Your task to perform on an android device: Open Google Chrome and click the shortcut for Amazon.com Image 0: 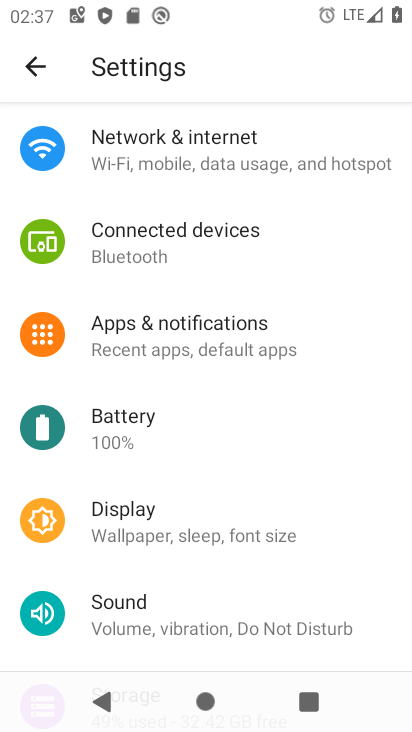
Step 0: press home button
Your task to perform on an android device: Open Google Chrome and click the shortcut for Amazon.com Image 1: 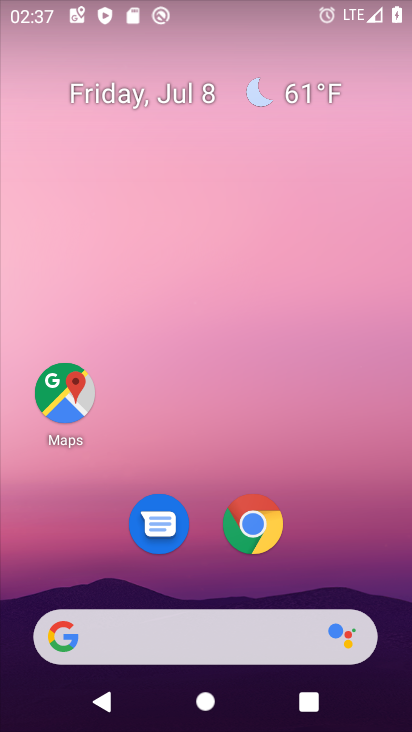
Step 1: click (269, 526)
Your task to perform on an android device: Open Google Chrome and click the shortcut for Amazon.com Image 2: 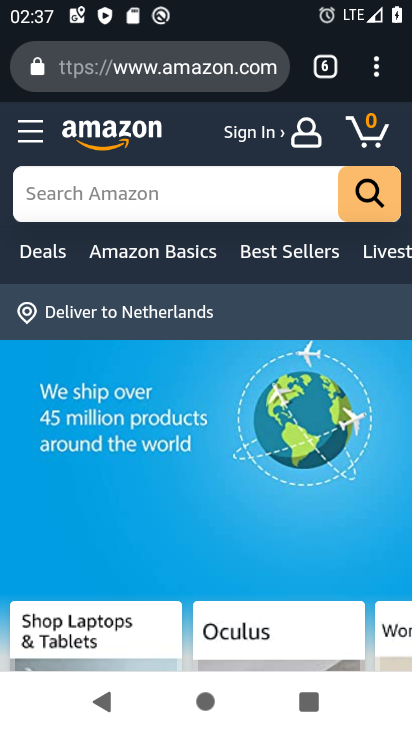
Step 2: click (377, 77)
Your task to perform on an android device: Open Google Chrome and click the shortcut for Amazon.com Image 3: 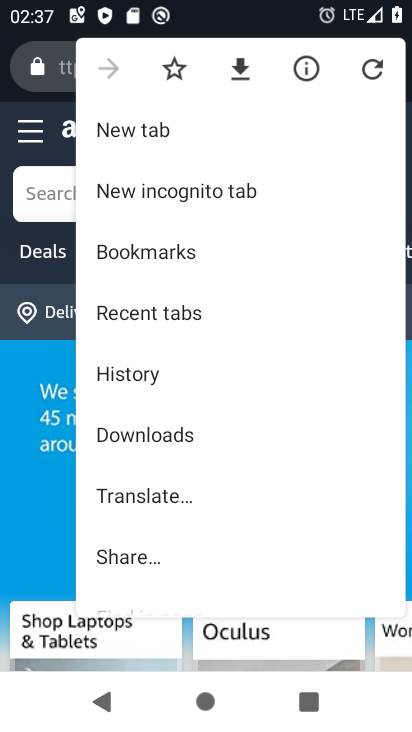
Step 3: click (238, 121)
Your task to perform on an android device: Open Google Chrome and click the shortcut for Amazon.com Image 4: 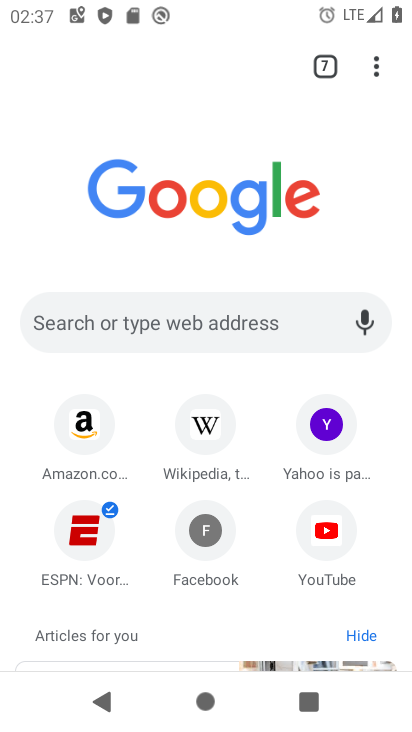
Step 4: click (93, 430)
Your task to perform on an android device: Open Google Chrome and click the shortcut for Amazon.com Image 5: 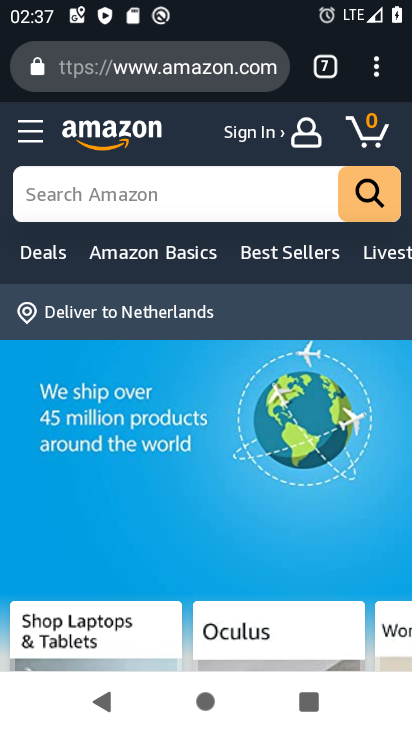
Step 5: task complete